Your task to perform on an android device: Open Android settings Image 0: 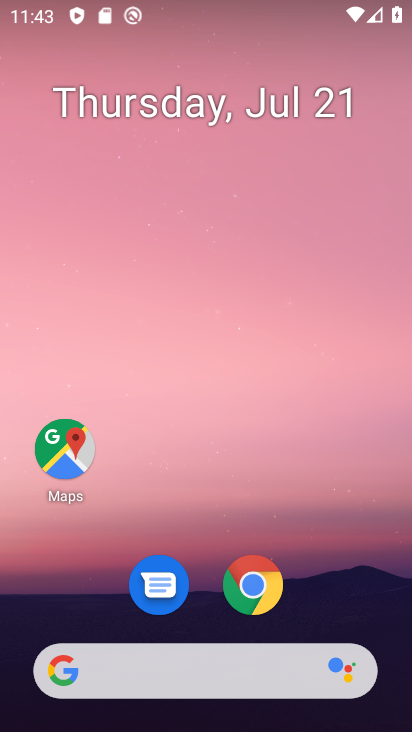
Step 0: press home button
Your task to perform on an android device: Open Android settings Image 1: 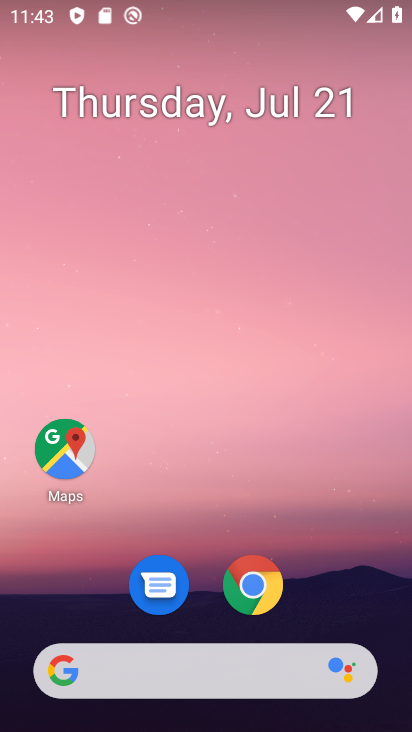
Step 1: drag from (193, 603) to (331, 88)
Your task to perform on an android device: Open Android settings Image 2: 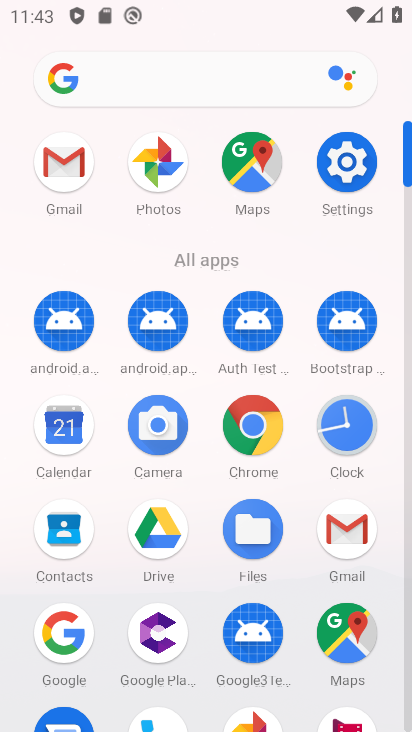
Step 2: click (359, 172)
Your task to perform on an android device: Open Android settings Image 3: 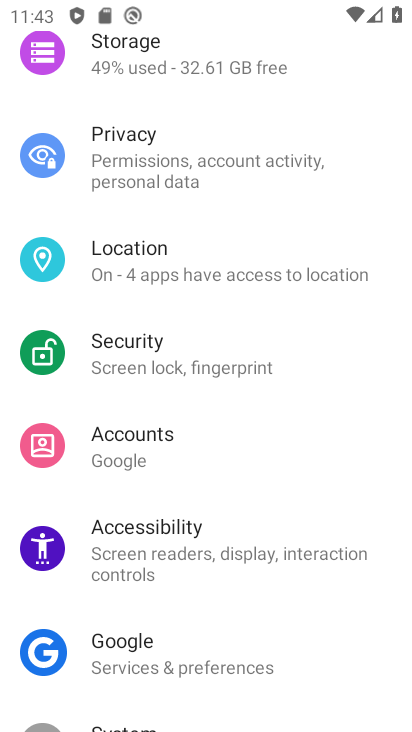
Step 3: task complete